Your task to perform on an android device: Toggle the flashlight Image 0: 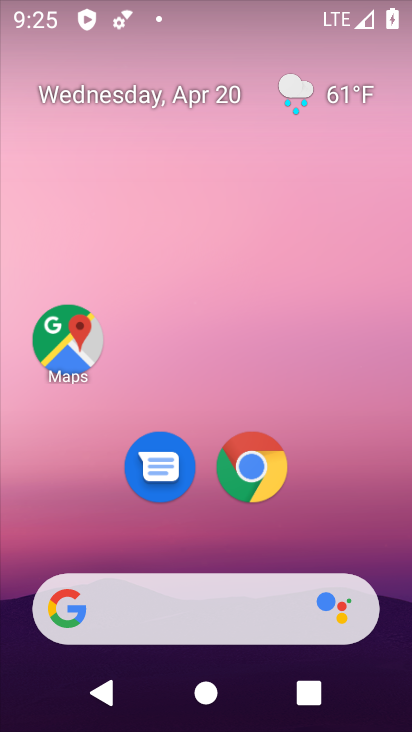
Step 0: drag from (289, 0) to (245, 457)
Your task to perform on an android device: Toggle the flashlight Image 1: 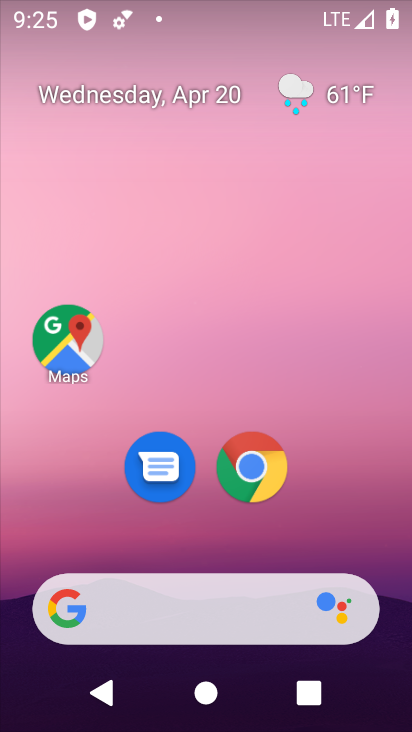
Step 1: task complete